Your task to perform on an android device: Open calendar and show me the third week of next month Image 0: 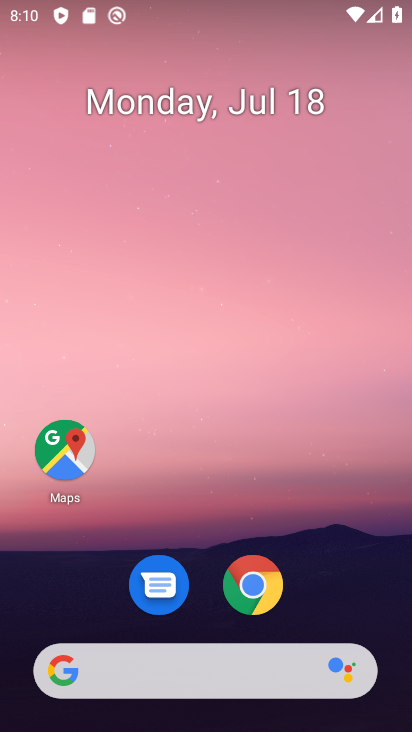
Step 0: drag from (196, 593) to (329, 66)
Your task to perform on an android device: Open calendar and show me the third week of next month Image 1: 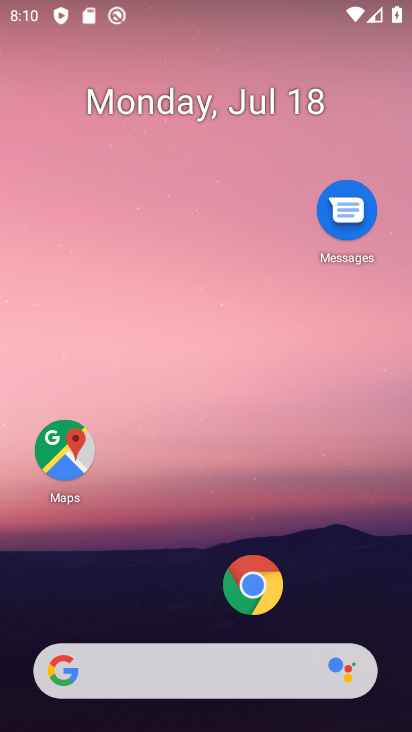
Step 1: drag from (168, 670) to (384, 116)
Your task to perform on an android device: Open calendar and show me the third week of next month Image 2: 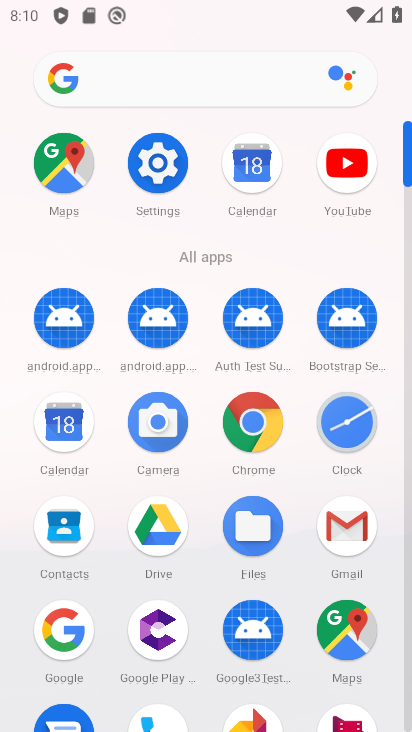
Step 2: click (65, 433)
Your task to perform on an android device: Open calendar and show me the third week of next month Image 3: 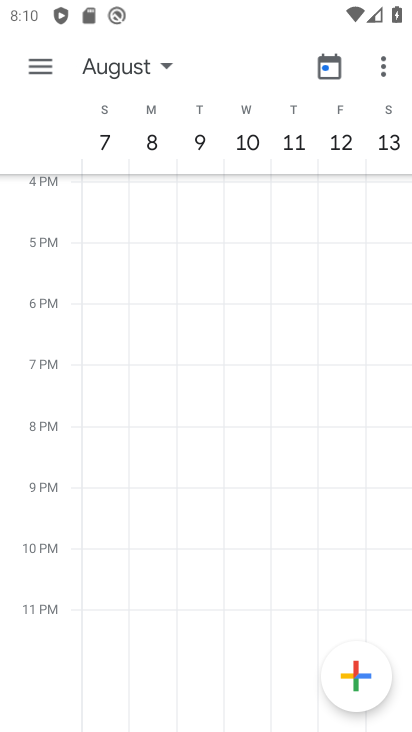
Step 3: click (128, 60)
Your task to perform on an android device: Open calendar and show me the third week of next month Image 4: 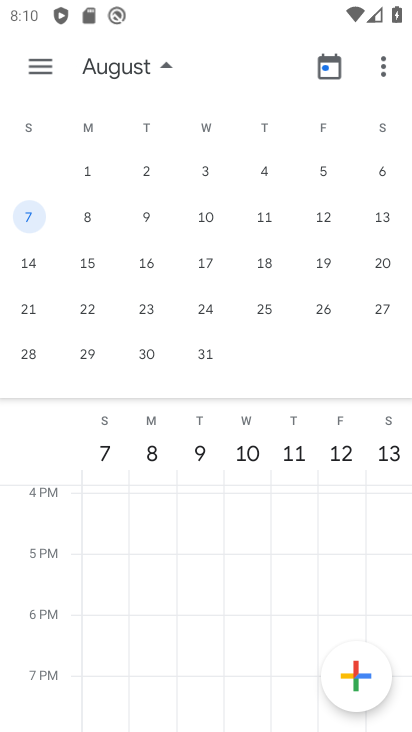
Step 4: click (30, 267)
Your task to perform on an android device: Open calendar and show me the third week of next month Image 5: 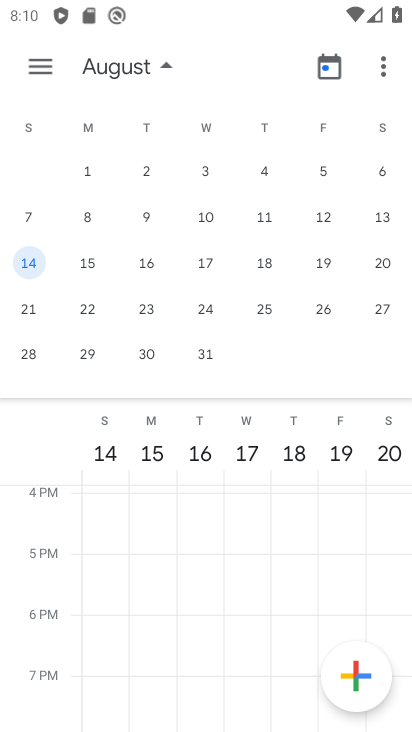
Step 5: task complete